Your task to perform on an android device: turn off location Image 0: 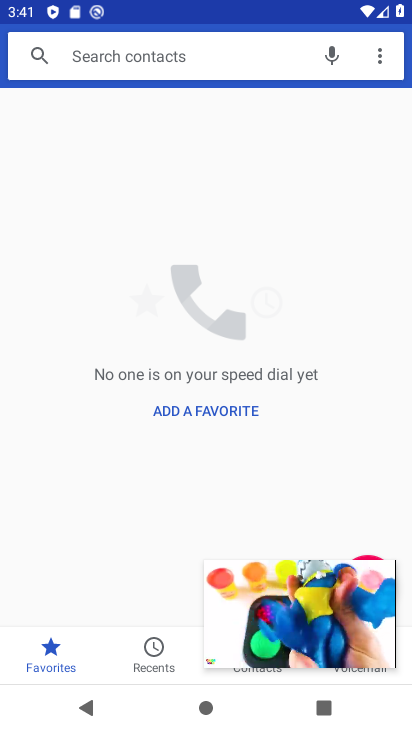
Step 0: press back button
Your task to perform on an android device: turn off location Image 1: 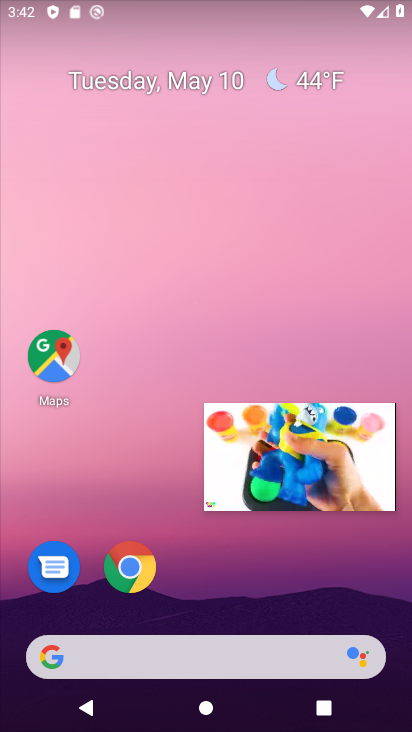
Step 1: drag from (228, 578) to (146, 191)
Your task to perform on an android device: turn off location Image 2: 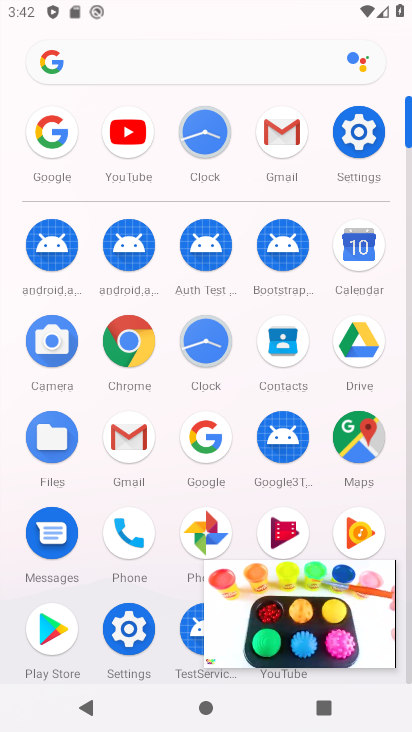
Step 2: click (357, 130)
Your task to perform on an android device: turn off location Image 3: 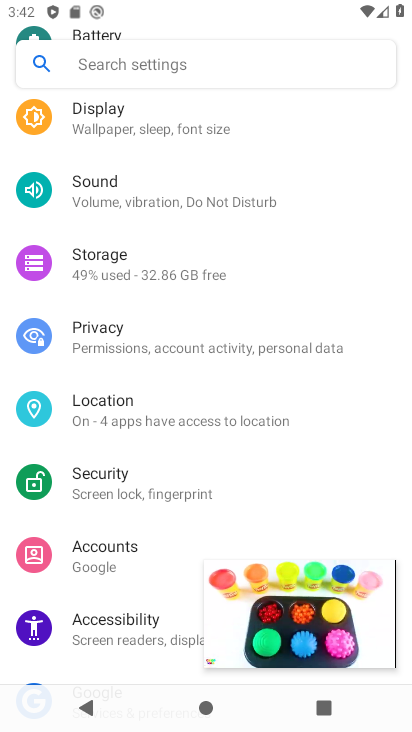
Step 3: click (103, 401)
Your task to perform on an android device: turn off location Image 4: 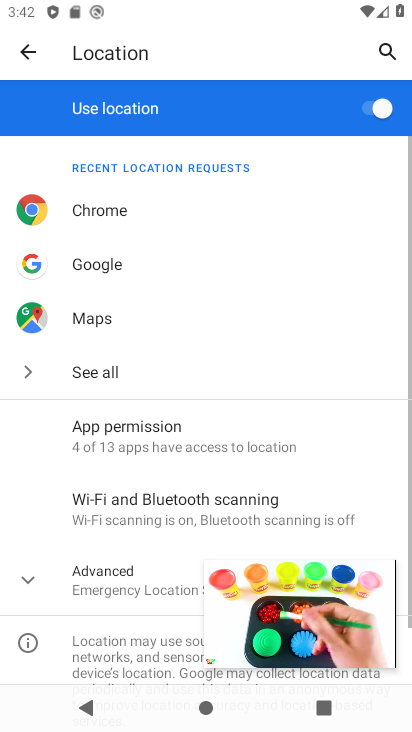
Step 4: drag from (119, 537) to (170, 347)
Your task to perform on an android device: turn off location Image 5: 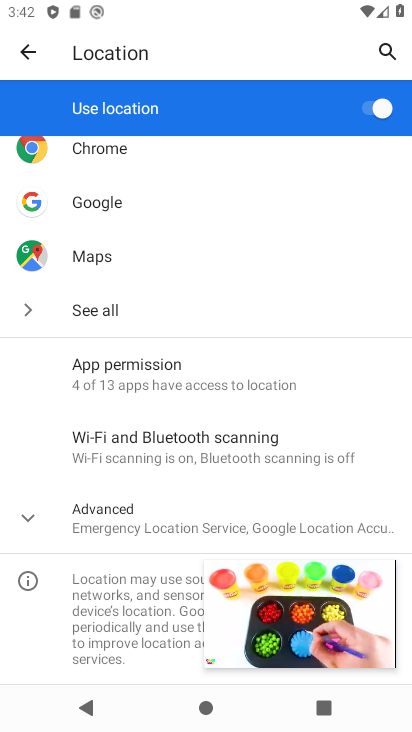
Step 5: click (369, 103)
Your task to perform on an android device: turn off location Image 6: 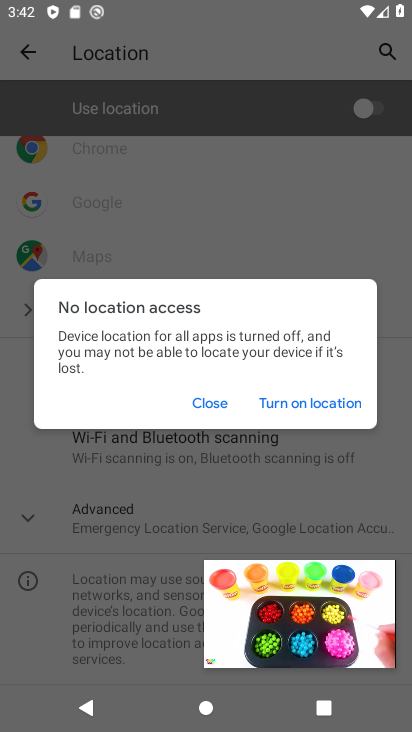
Step 6: task complete